Your task to perform on an android device: set an alarm Image 0: 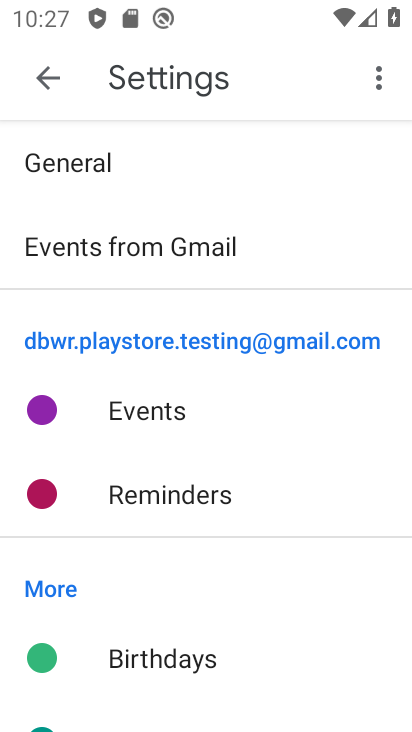
Step 0: press home button
Your task to perform on an android device: set an alarm Image 1: 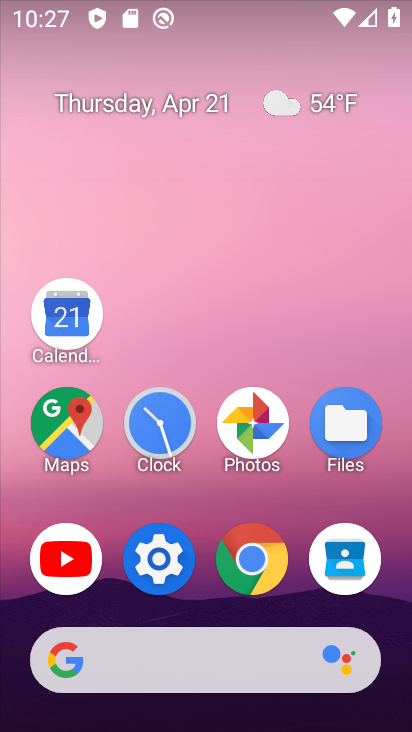
Step 1: click (151, 418)
Your task to perform on an android device: set an alarm Image 2: 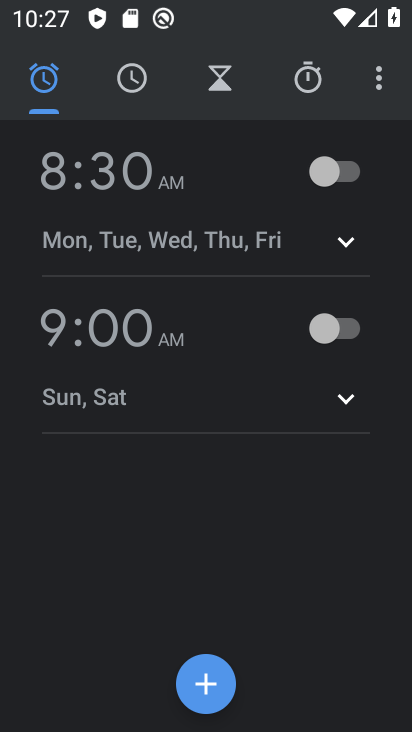
Step 2: click (203, 692)
Your task to perform on an android device: set an alarm Image 3: 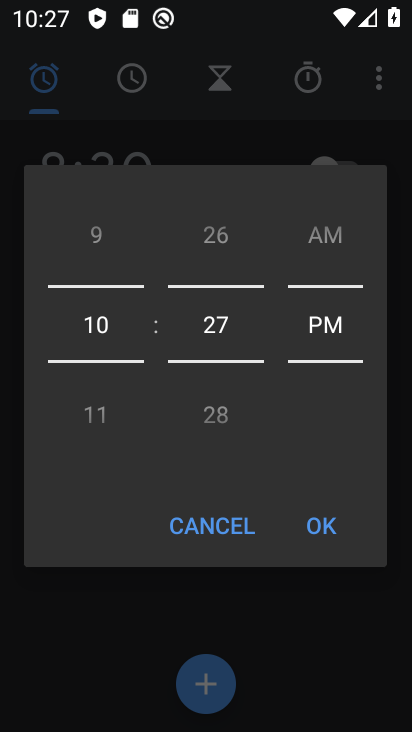
Step 3: click (314, 526)
Your task to perform on an android device: set an alarm Image 4: 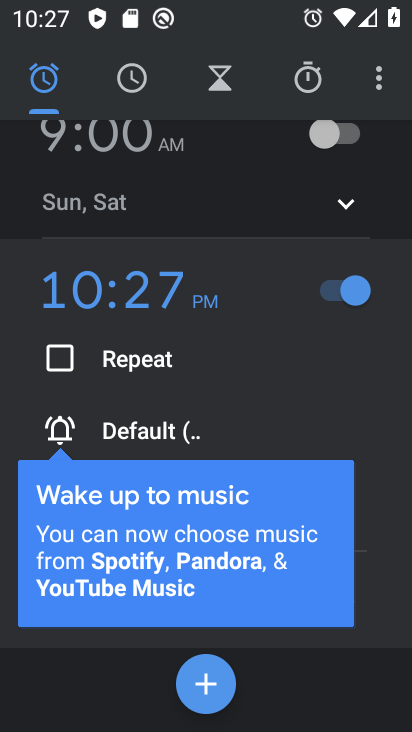
Step 4: task complete